Your task to perform on an android device: set an alarm Image 0: 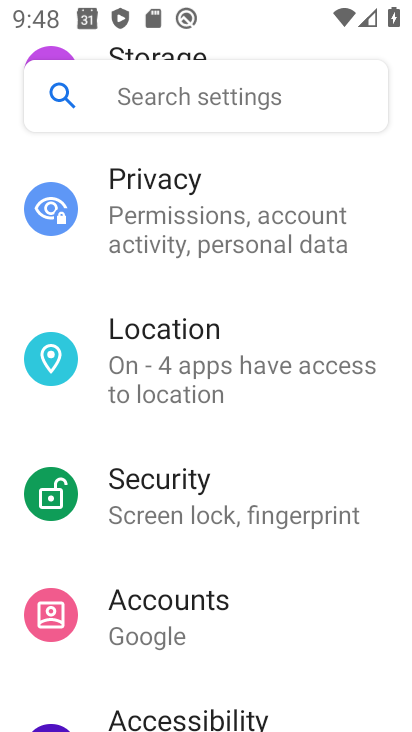
Step 0: press back button
Your task to perform on an android device: set an alarm Image 1: 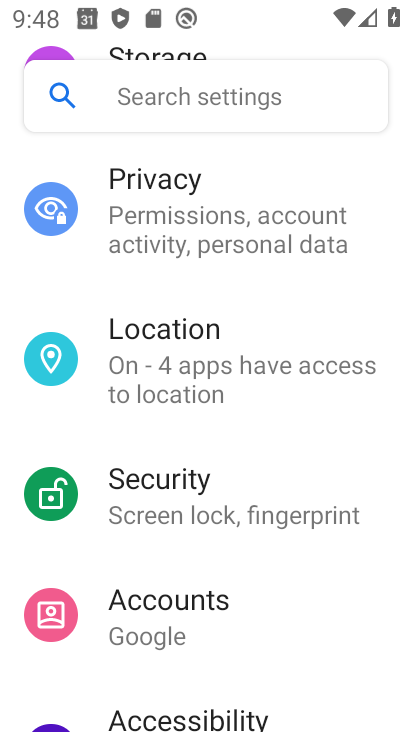
Step 1: press back button
Your task to perform on an android device: set an alarm Image 2: 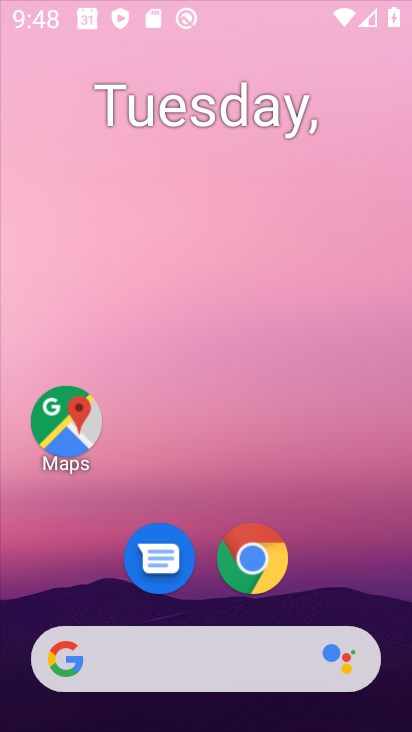
Step 2: press back button
Your task to perform on an android device: set an alarm Image 3: 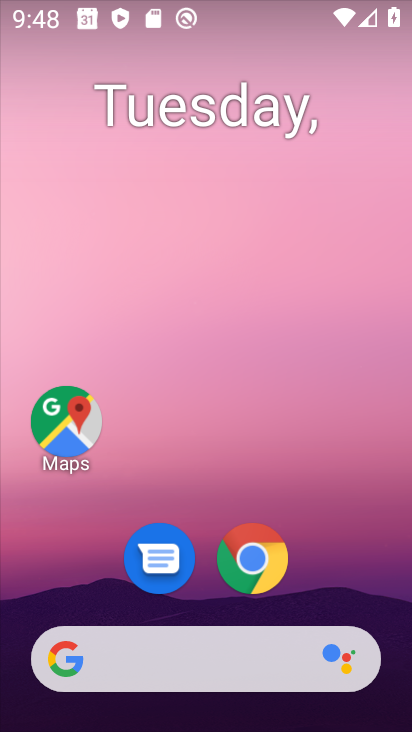
Step 3: drag from (321, 607) to (155, 156)
Your task to perform on an android device: set an alarm Image 4: 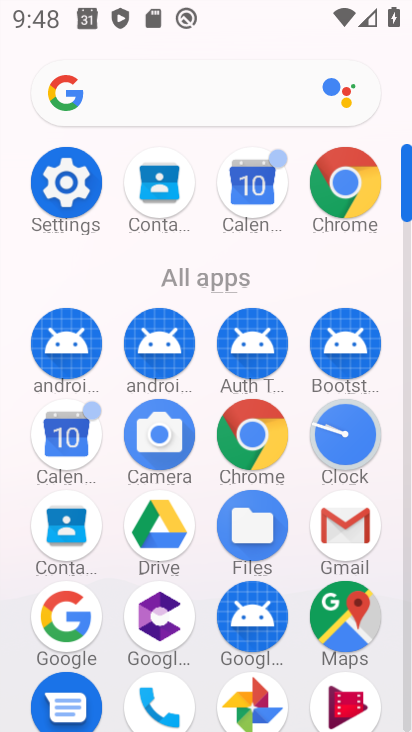
Step 4: click (341, 436)
Your task to perform on an android device: set an alarm Image 5: 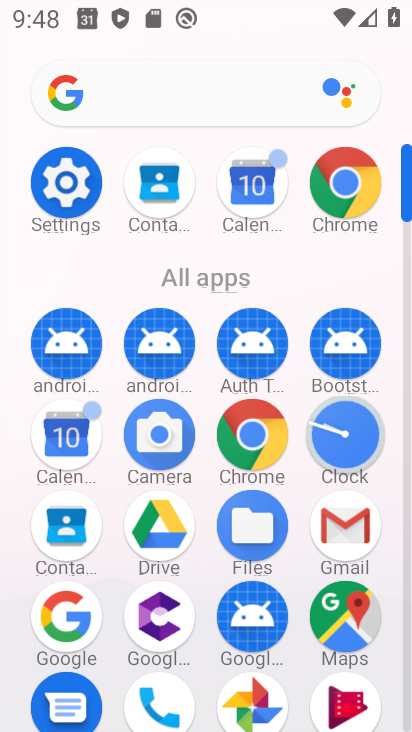
Step 5: click (341, 436)
Your task to perform on an android device: set an alarm Image 6: 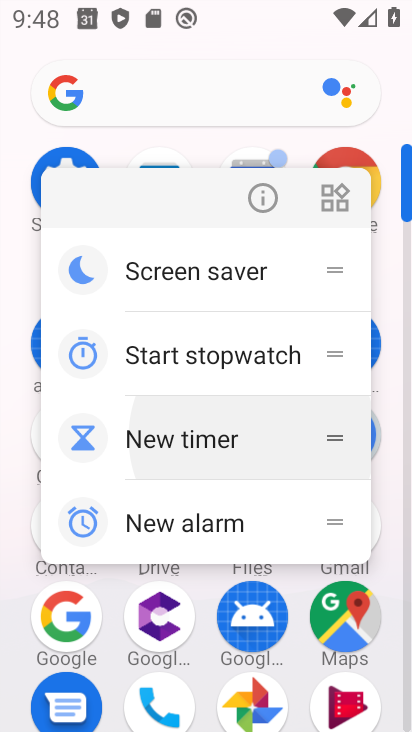
Step 6: click (338, 437)
Your task to perform on an android device: set an alarm Image 7: 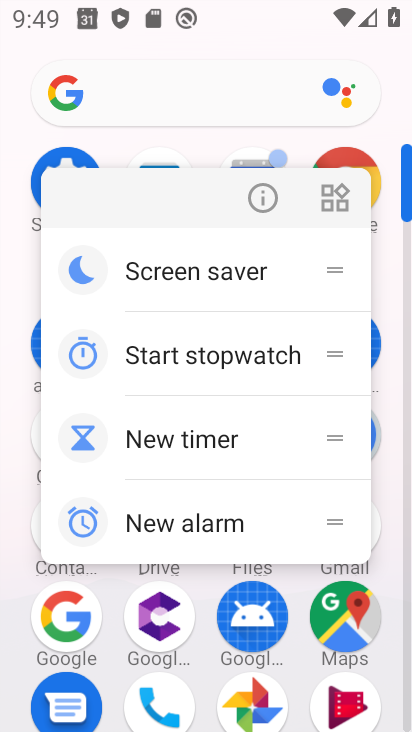
Step 7: click (381, 271)
Your task to perform on an android device: set an alarm Image 8: 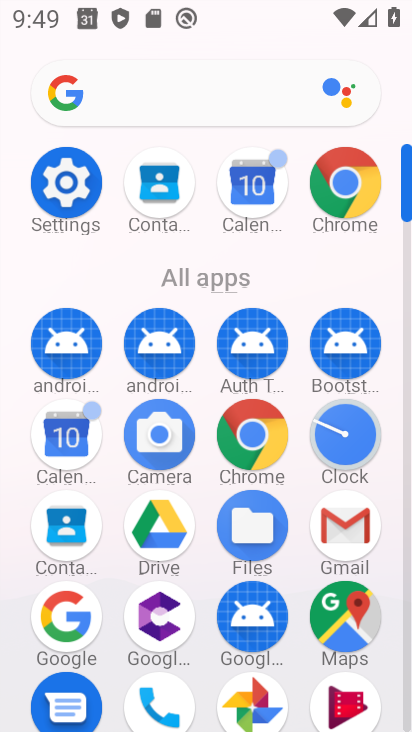
Step 8: click (69, 437)
Your task to perform on an android device: set an alarm Image 9: 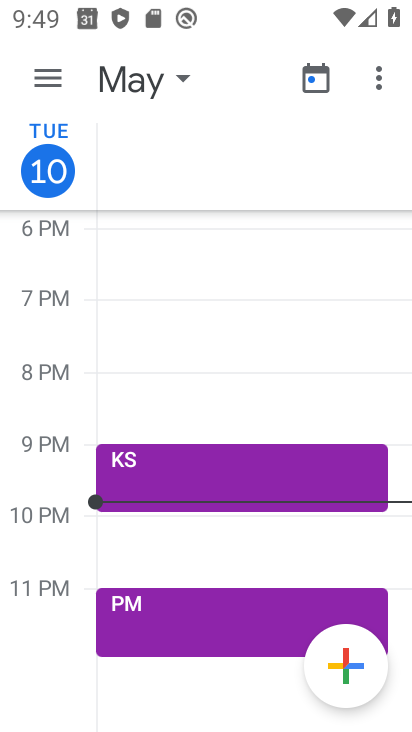
Step 9: press back button
Your task to perform on an android device: set an alarm Image 10: 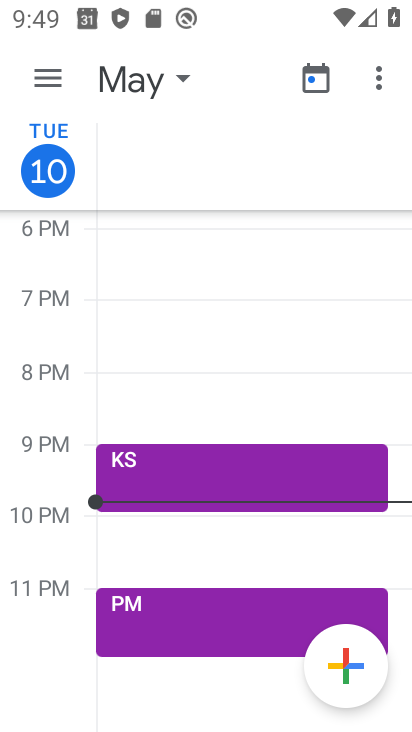
Step 10: press back button
Your task to perform on an android device: set an alarm Image 11: 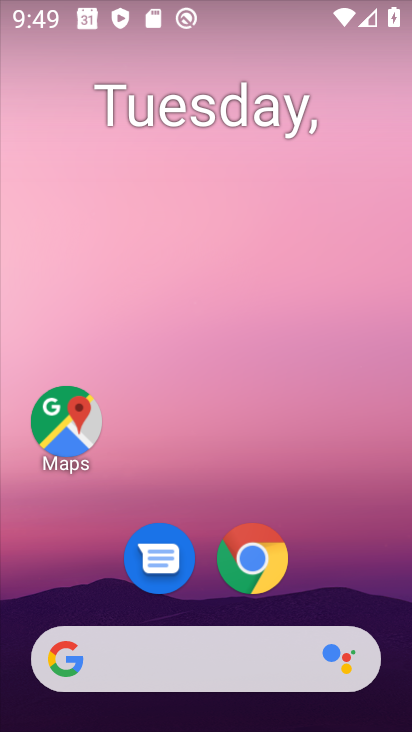
Step 11: press home button
Your task to perform on an android device: set an alarm Image 12: 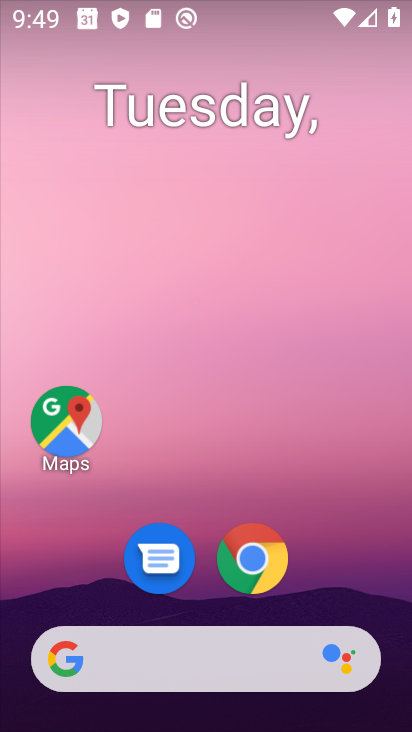
Step 12: drag from (333, 635) to (79, 22)
Your task to perform on an android device: set an alarm Image 13: 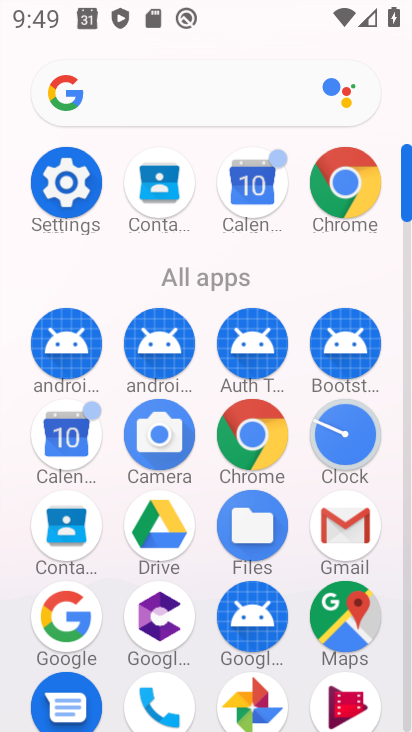
Step 13: drag from (229, 475) to (106, 66)
Your task to perform on an android device: set an alarm Image 14: 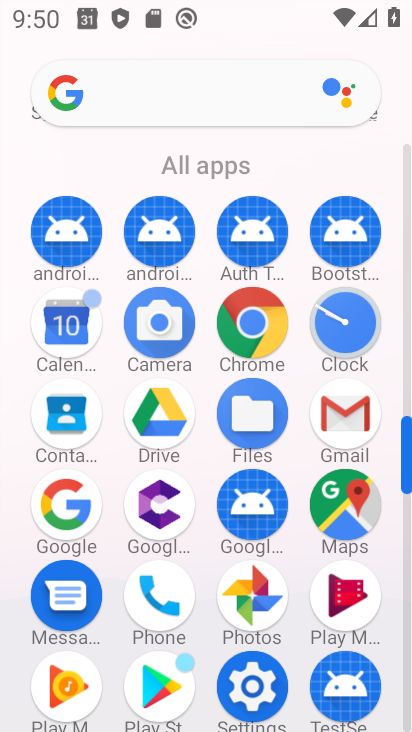
Step 14: click (351, 325)
Your task to perform on an android device: set an alarm Image 15: 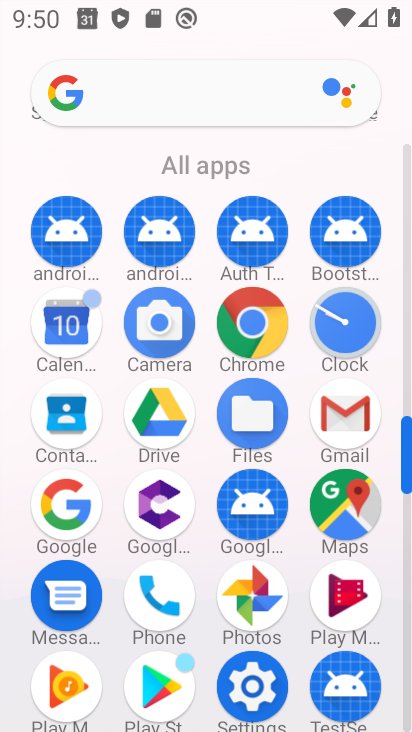
Step 15: click (351, 325)
Your task to perform on an android device: set an alarm Image 16: 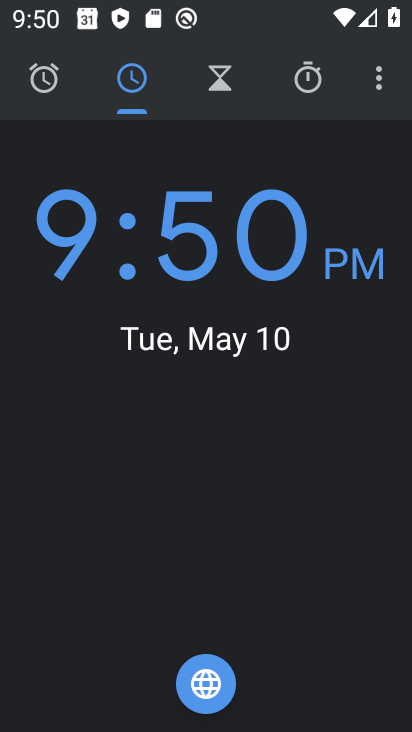
Step 16: click (47, 77)
Your task to perform on an android device: set an alarm Image 17: 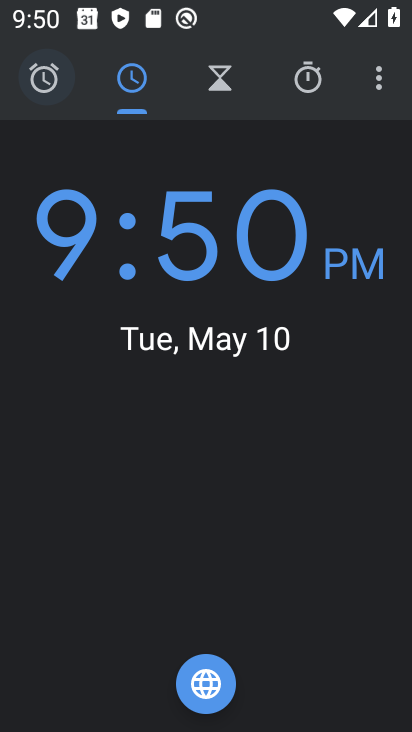
Step 17: click (47, 78)
Your task to perform on an android device: set an alarm Image 18: 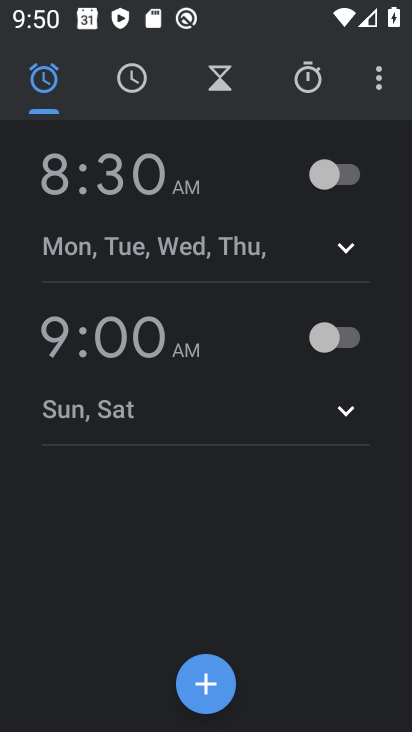
Step 18: click (328, 202)
Your task to perform on an android device: set an alarm Image 19: 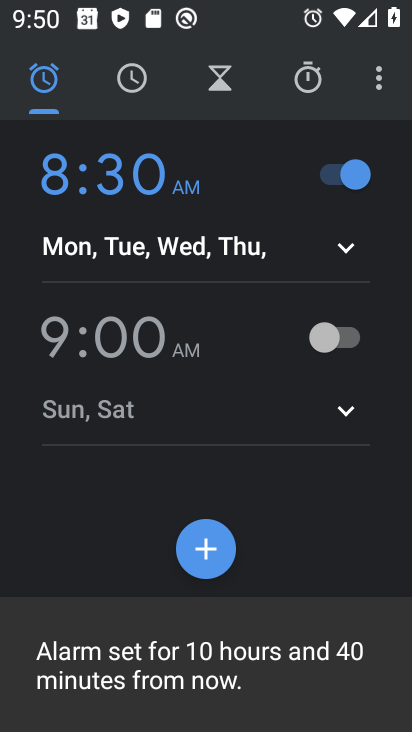
Step 19: click (329, 183)
Your task to perform on an android device: set an alarm Image 20: 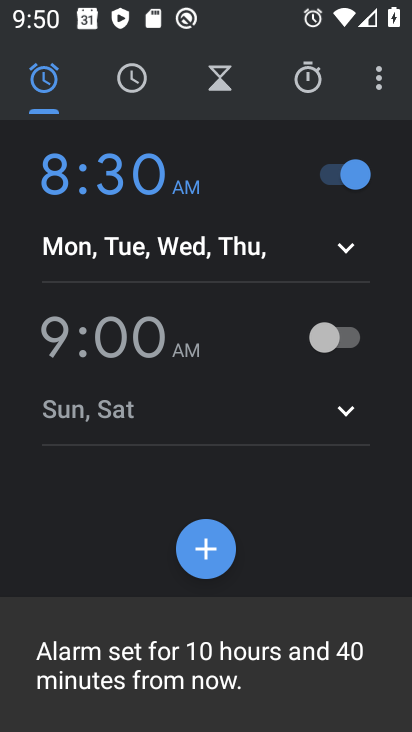
Step 20: click (329, 183)
Your task to perform on an android device: set an alarm Image 21: 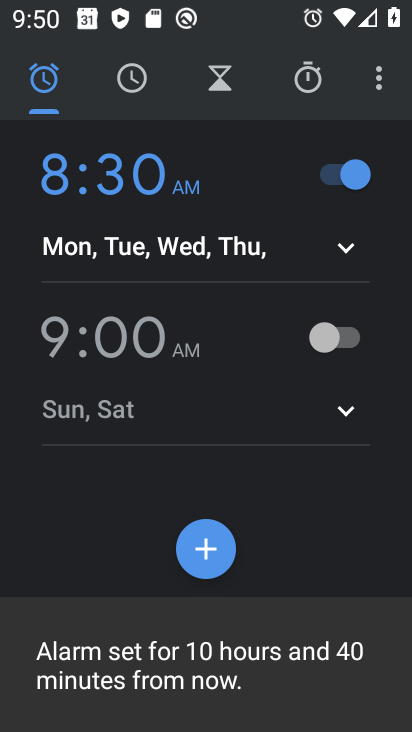
Step 21: task complete